Your task to perform on an android device: clear history in the chrome app Image 0: 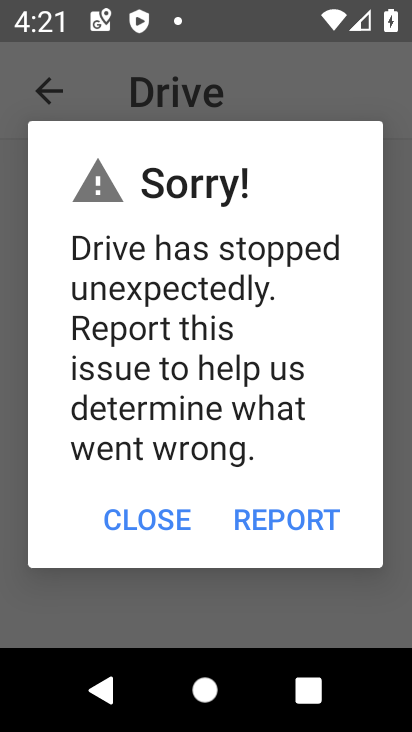
Step 0: press home button
Your task to perform on an android device: clear history in the chrome app Image 1: 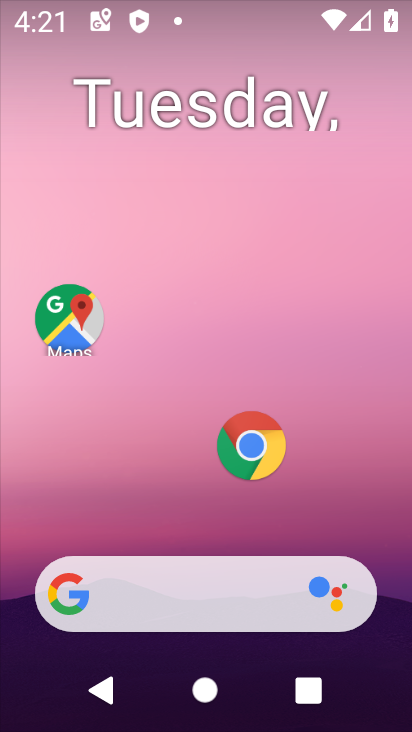
Step 1: click (256, 435)
Your task to perform on an android device: clear history in the chrome app Image 2: 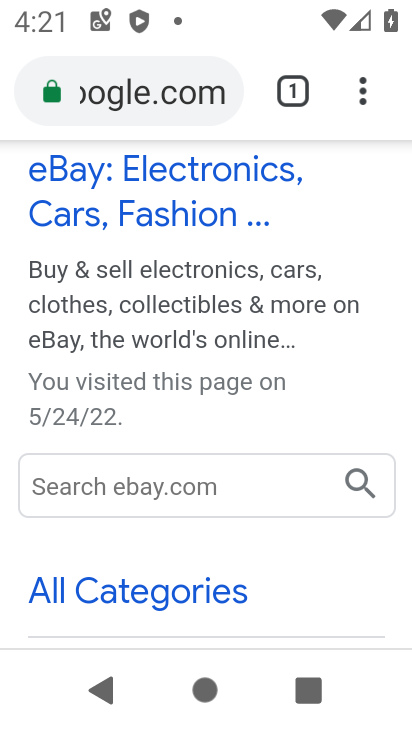
Step 2: click (360, 87)
Your task to perform on an android device: clear history in the chrome app Image 3: 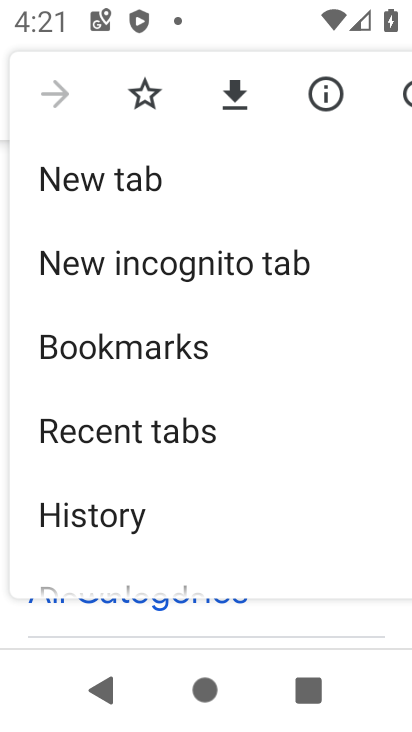
Step 3: click (113, 508)
Your task to perform on an android device: clear history in the chrome app Image 4: 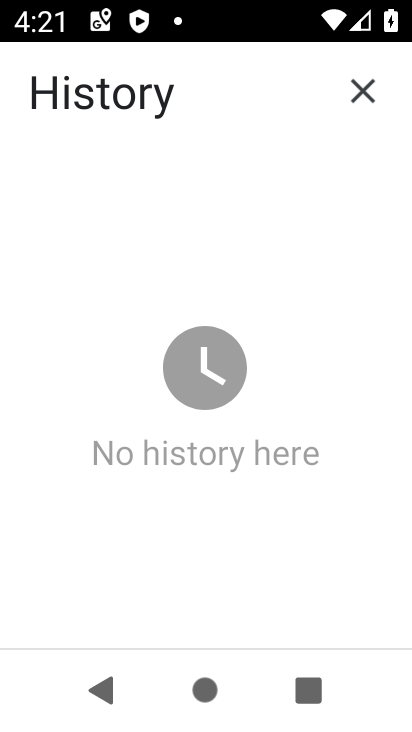
Step 4: task complete